Your task to perform on an android device: Go to Maps Image 0: 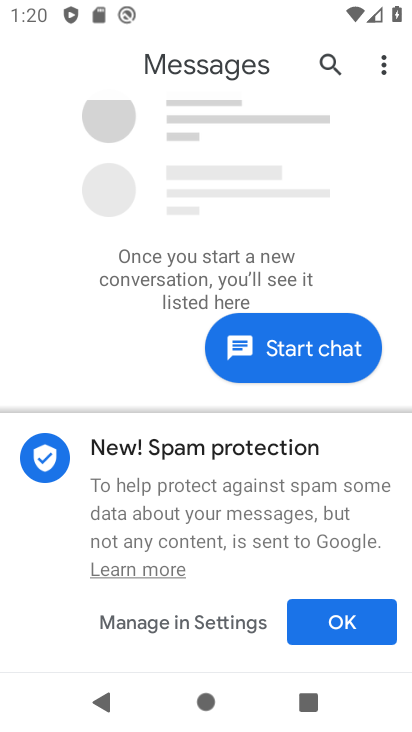
Step 0: press home button
Your task to perform on an android device: Go to Maps Image 1: 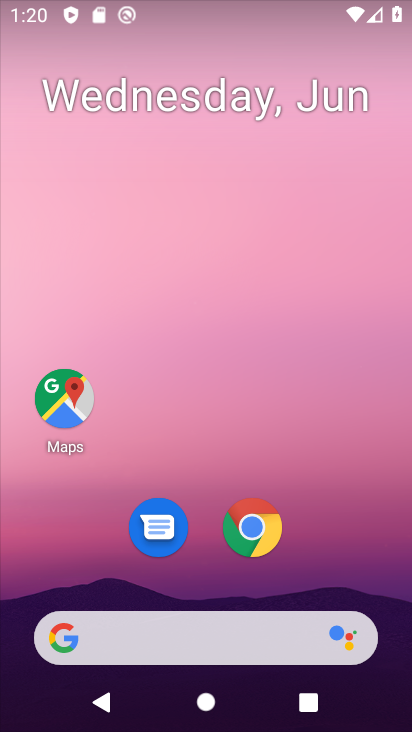
Step 1: drag from (393, 578) to (284, 99)
Your task to perform on an android device: Go to Maps Image 2: 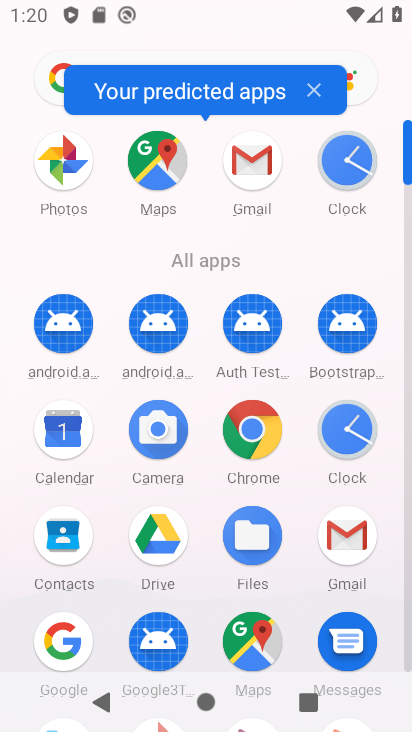
Step 2: click (258, 643)
Your task to perform on an android device: Go to Maps Image 3: 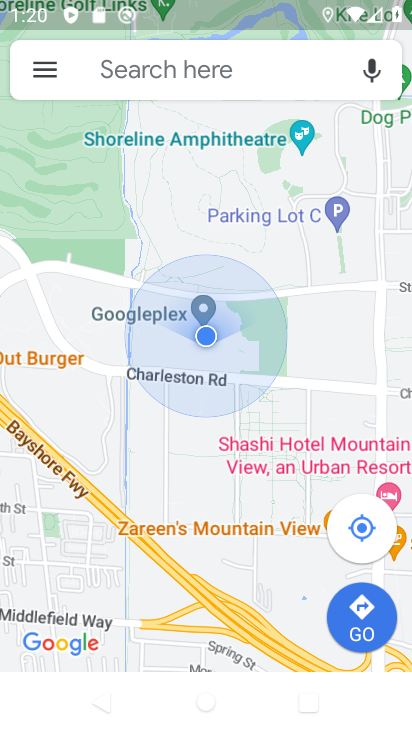
Step 3: task complete